Your task to perform on an android device: Open calendar and show me the fourth week of next month Image 0: 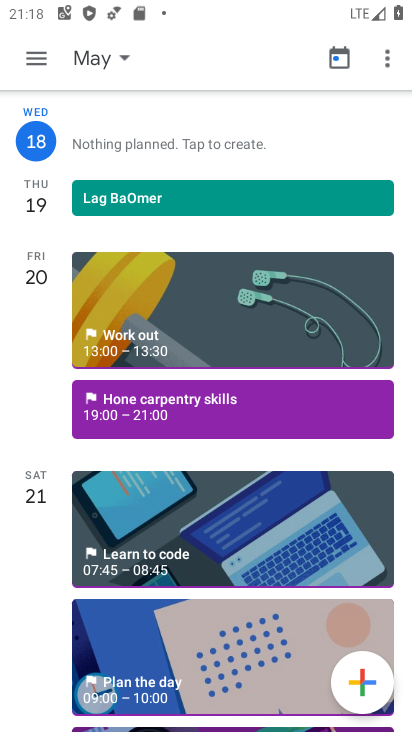
Step 0: press back button
Your task to perform on an android device: Open calendar and show me the fourth week of next month Image 1: 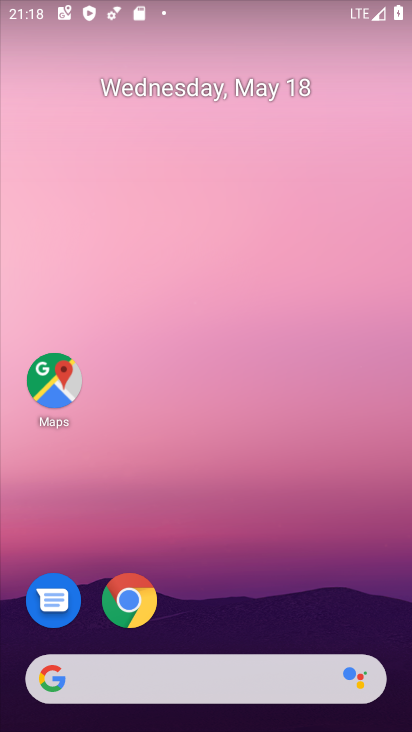
Step 1: drag from (265, 606) to (331, 40)
Your task to perform on an android device: Open calendar and show me the fourth week of next month Image 2: 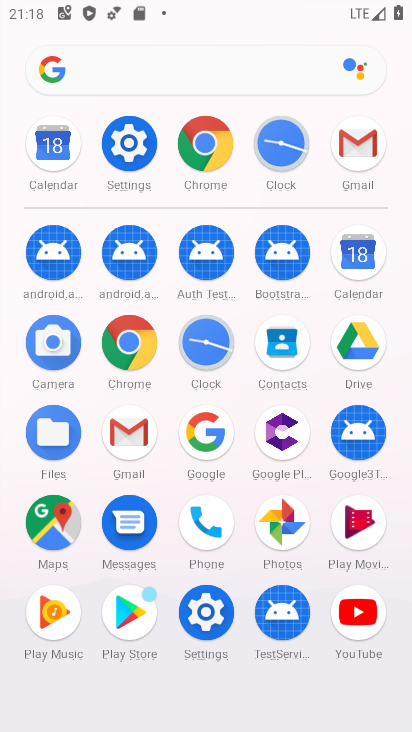
Step 2: click (347, 261)
Your task to perform on an android device: Open calendar and show me the fourth week of next month Image 3: 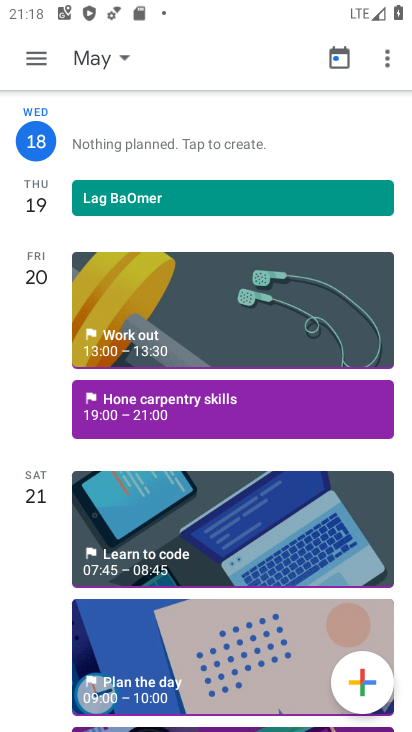
Step 3: click (114, 47)
Your task to perform on an android device: Open calendar and show me the fourth week of next month Image 4: 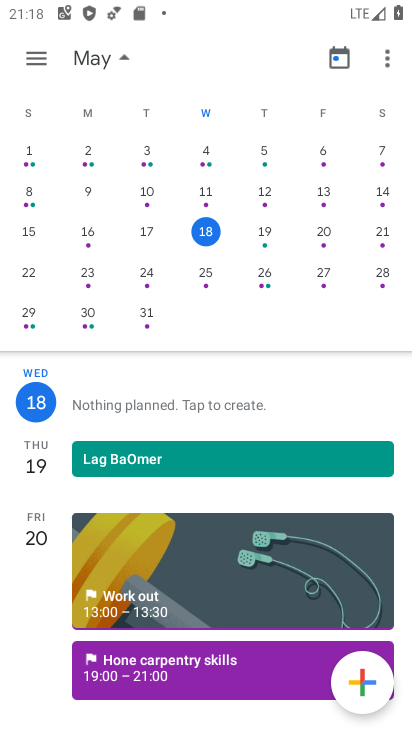
Step 4: drag from (382, 212) to (53, 189)
Your task to perform on an android device: Open calendar and show me the fourth week of next month Image 5: 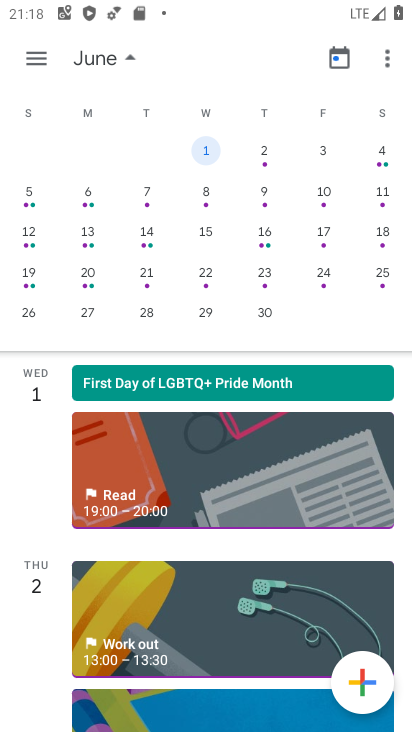
Step 5: click (68, 267)
Your task to perform on an android device: Open calendar and show me the fourth week of next month Image 6: 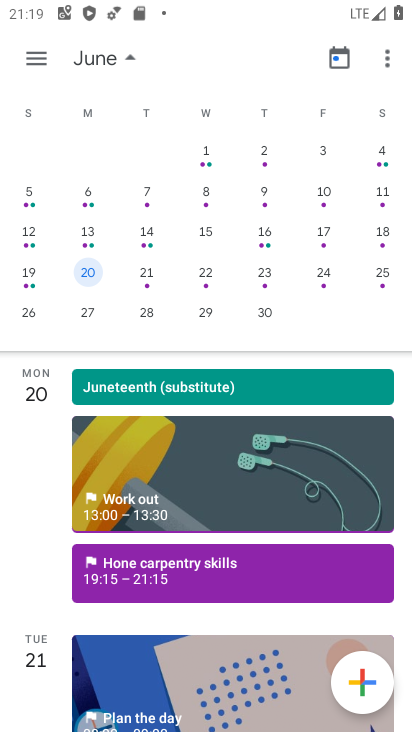
Step 6: task complete